Your task to perform on an android device: turn off translation in the chrome app Image 0: 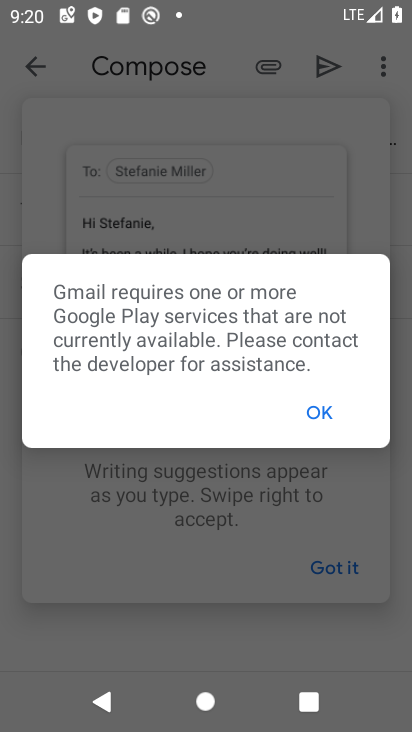
Step 0: press home button
Your task to perform on an android device: turn off translation in the chrome app Image 1: 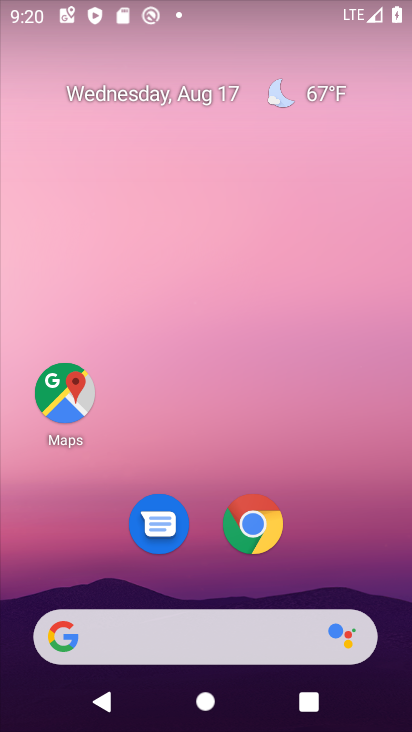
Step 1: click (261, 522)
Your task to perform on an android device: turn off translation in the chrome app Image 2: 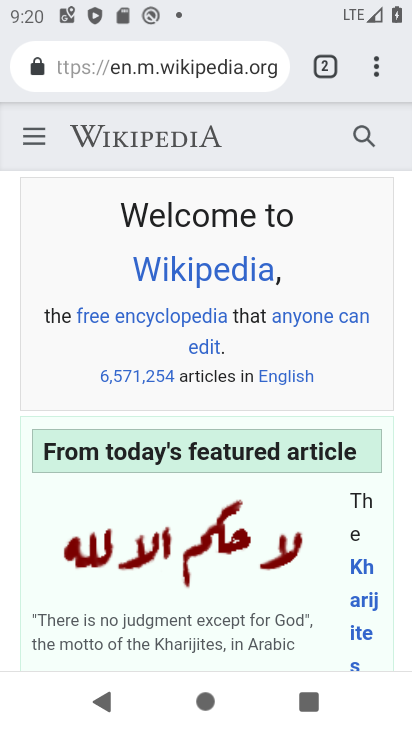
Step 2: press back button
Your task to perform on an android device: turn off translation in the chrome app Image 3: 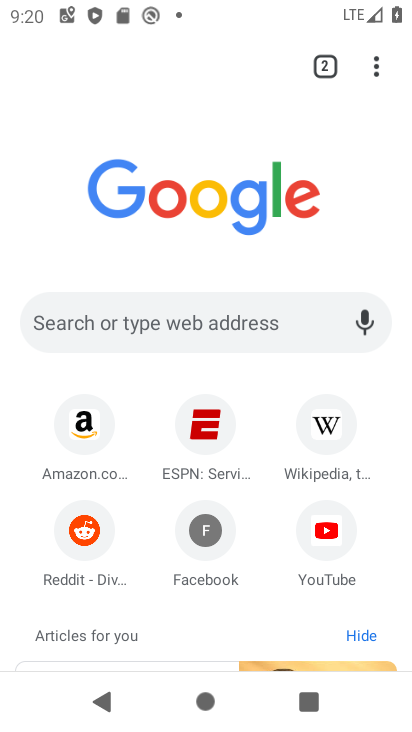
Step 3: click (378, 72)
Your task to perform on an android device: turn off translation in the chrome app Image 4: 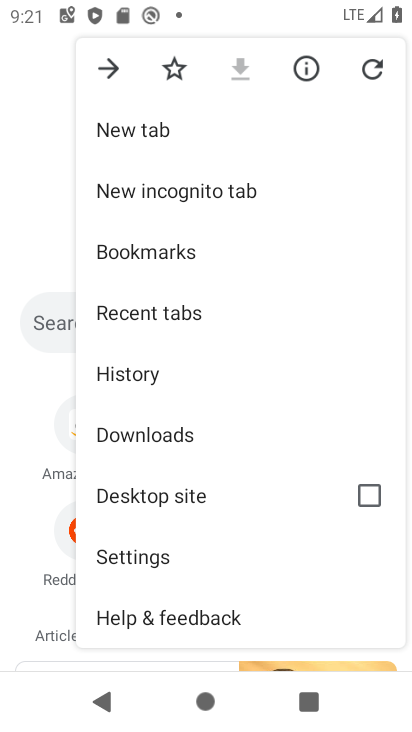
Step 4: click (161, 554)
Your task to perform on an android device: turn off translation in the chrome app Image 5: 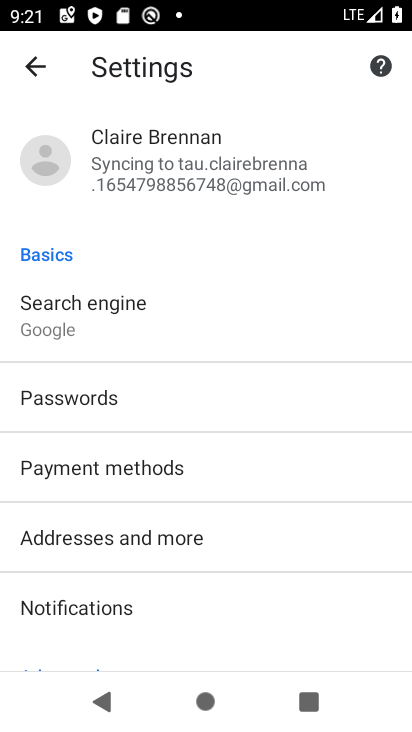
Step 5: drag from (254, 527) to (285, 9)
Your task to perform on an android device: turn off translation in the chrome app Image 6: 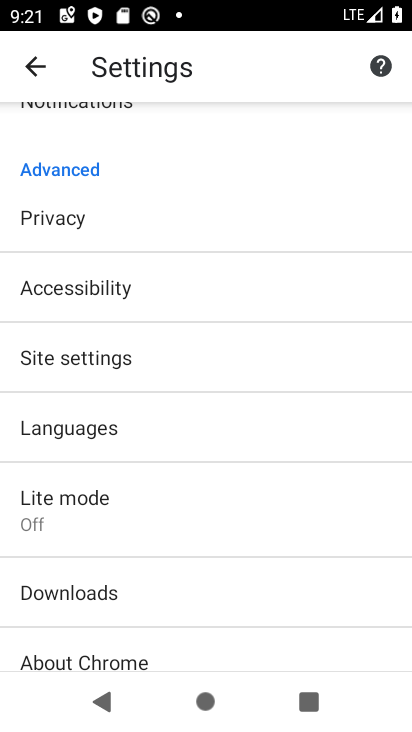
Step 6: click (200, 431)
Your task to perform on an android device: turn off translation in the chrome app Image 7: 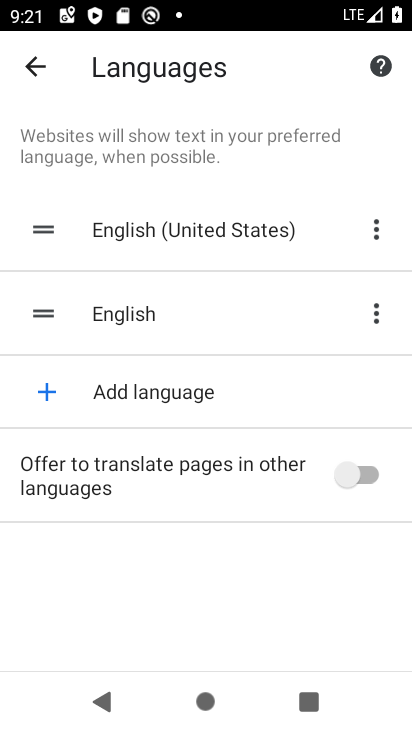
Step 7: task complete